Your task to perform on an android device: open the mobile data screen to see how much data has been used Image 0: 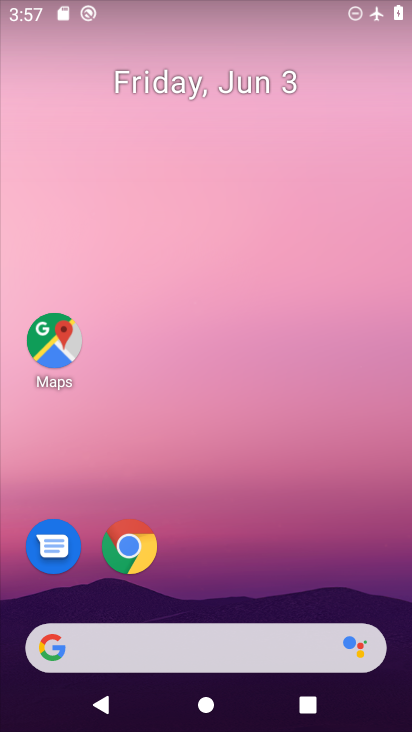
Step 0: drag from (242, 532) to (259, 31)
Your task to perform on an android device: open the mobile data screen to see how much data has been used Image 1: 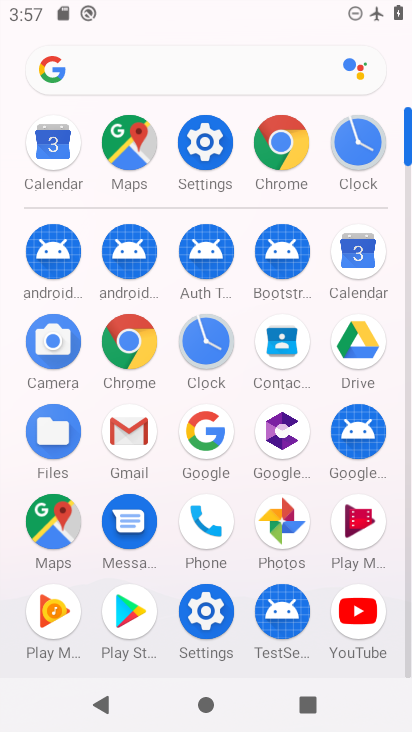
Step 1: click (201, 139)
Your task to perform on an android device: open the mobile data screen to see how much data has been used Image 2: 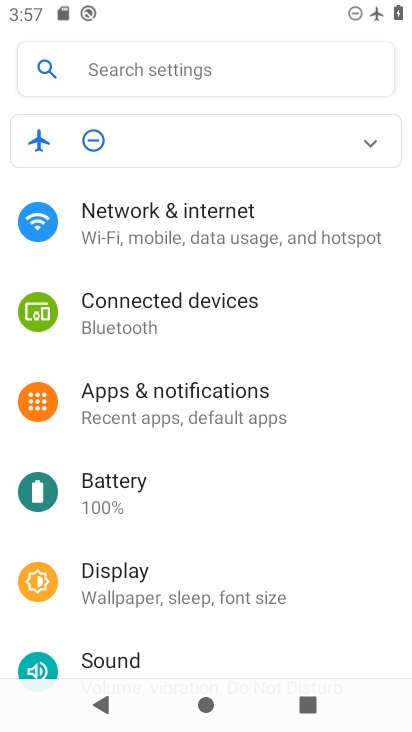
Step 2: click (246, 229)
Your task to perform on an android device: open the mobile data screen to see how much data has been used Image 3: 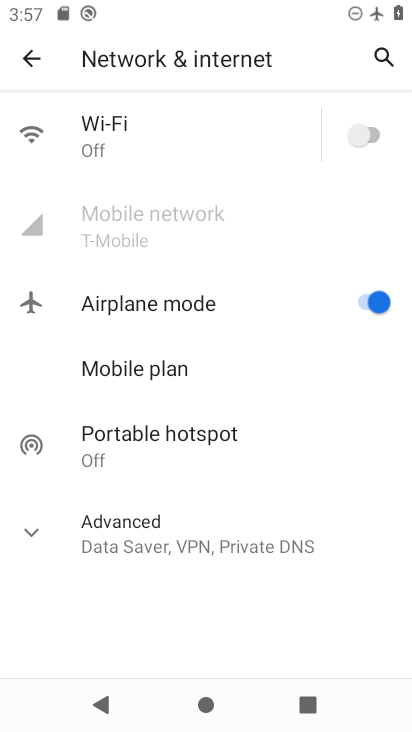
Step 3: click (366, 132)
Your task to perform on an android device: open the mobile data screen to see how much data has been used Image 4: 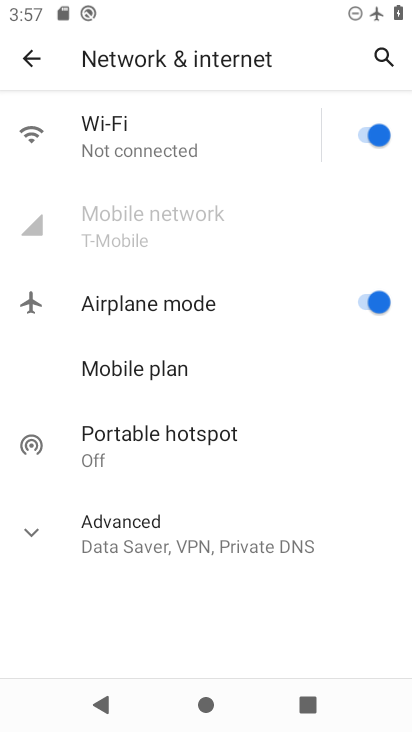
Step 4: click (367, 294)
Your task to perform on an android device: open the mobile data screen to see how much data has been used Image 5: 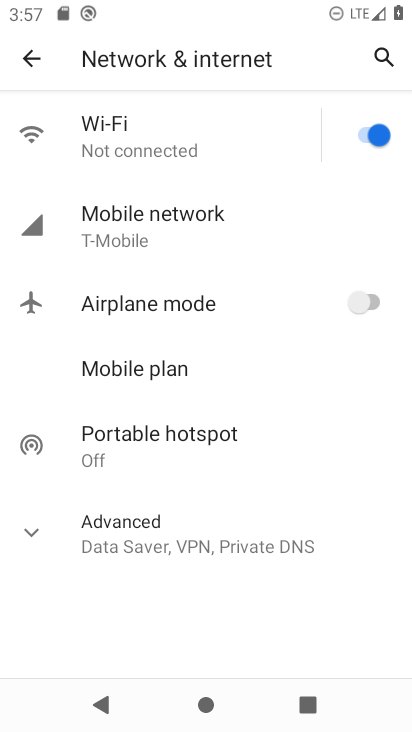
Step 5: click (247, 218)
Your task to perform on an android device: open the mobile data screen to see how much data has been used Image 6: 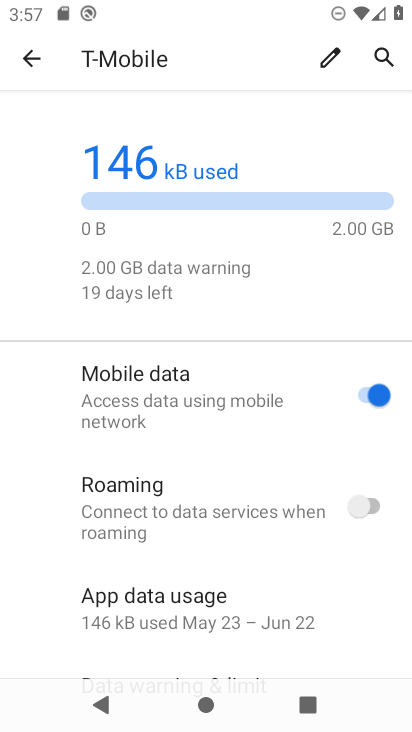
Step 6: task complete